Your task to perform on an android device: move an email to a new category in the gmail app Image 0: 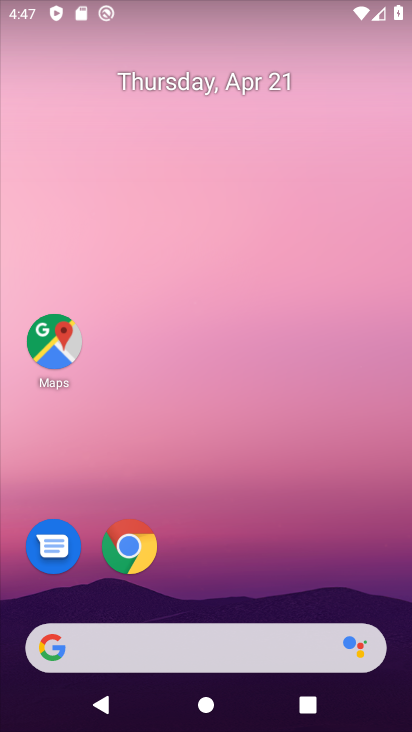
Step 0: drag from (248, 540) to (238, 70)
Your task to perform on an android device: move an email to a new category in the gmail app Image 1: 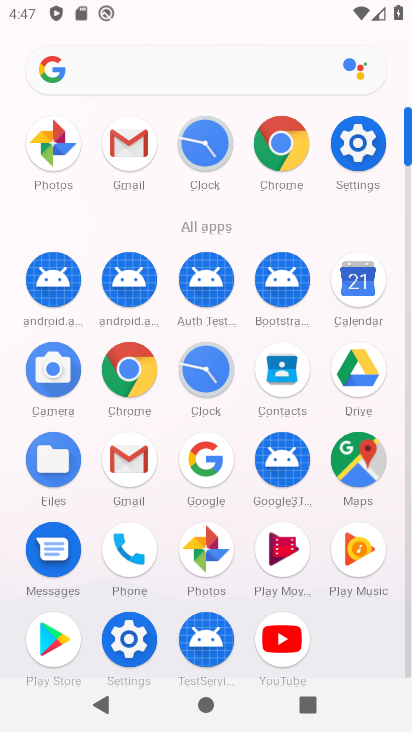
Step 1: click (129, 135)
Your task to perform on an android device: move an email to a new category in the gmail app Image 2: 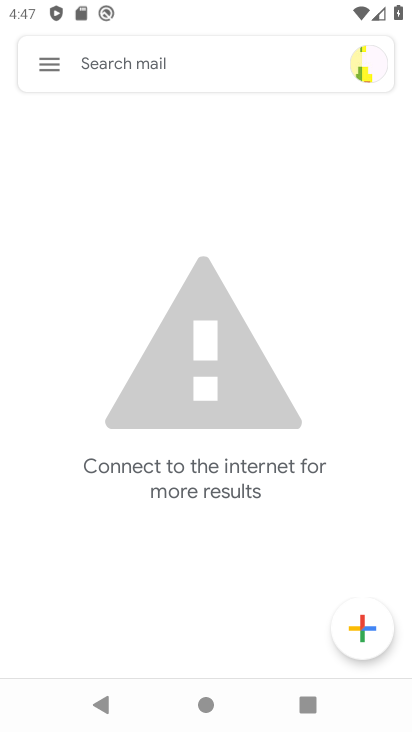
Step 2: click (50, 65)
Your task to perform on an android device: move an email to a new category in the gmail app Image 3: 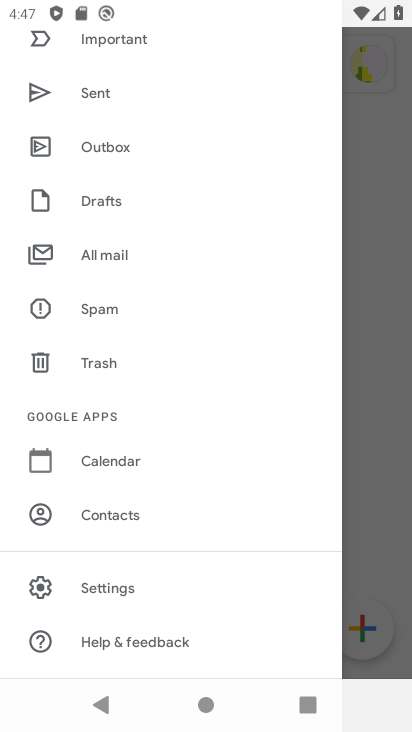
Step 3: click (115, 259)
Your task to perform on an android device: move an email to a new category in the gmail app Image 4: 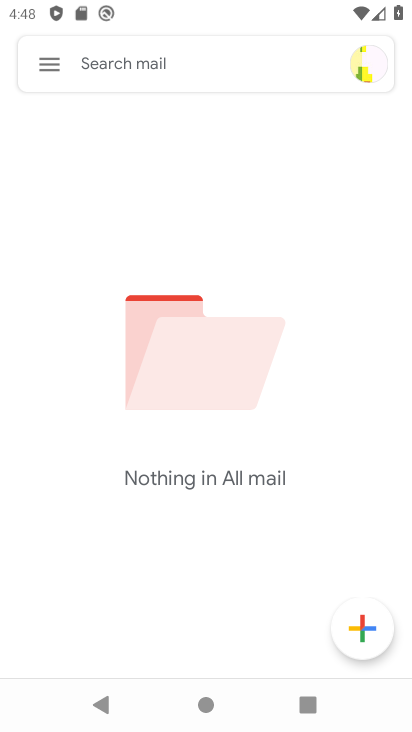
Step 4: click (51, 64)
Your task to perform on an android device: move an email to a new category in the gmail app Image 5: 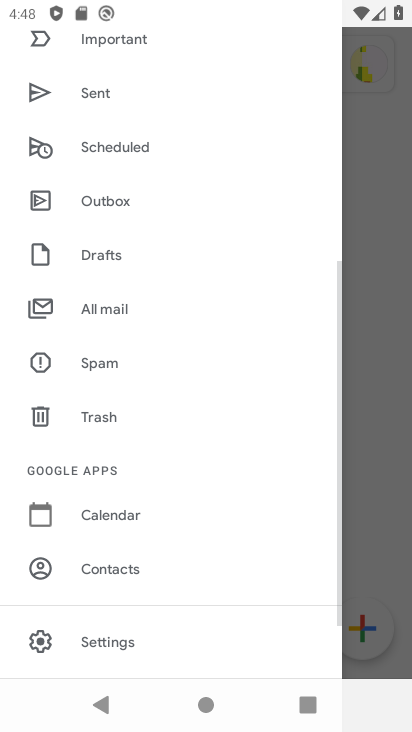
Step 5: drag from (170, 129) to (138, 509)
Your task to perform on an android device: move an email to a new category in the gmail app Image 6: 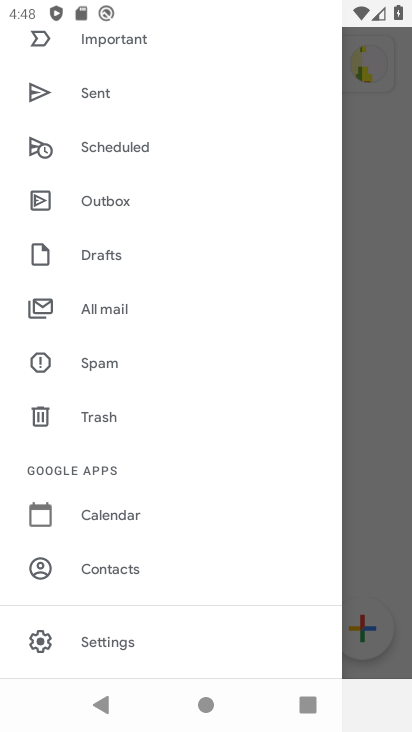
Step 6: drag from (127, 197) to (96, 602)
Your task to perform on an android device: move an email to a new category in the gmail app Image 7: 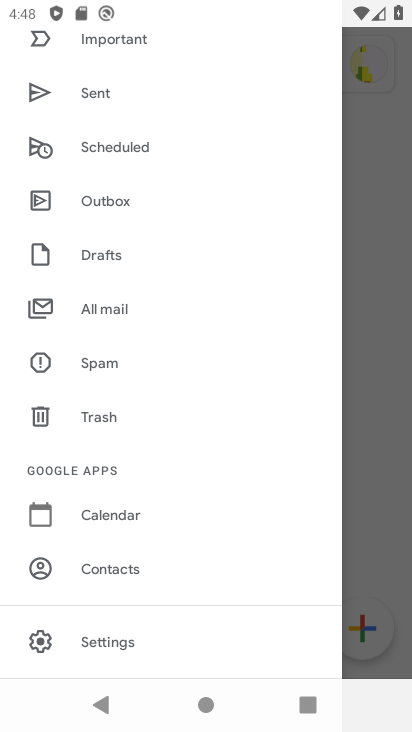
Step 7: drag from (116, 275) to (116, 539)
Your task to perform on an android device: move an email to a new category in the gmail app Image 8: 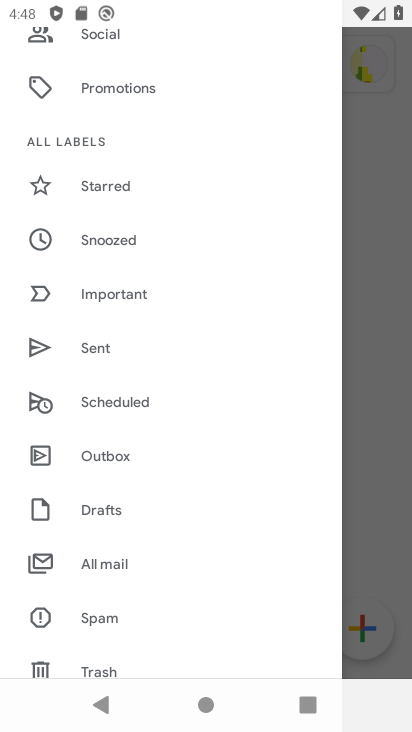
Step 8: drag from (106, 129) to (91, 495)
Your task to perform on an android device: move an email to a new category in the gmail app Image 9: 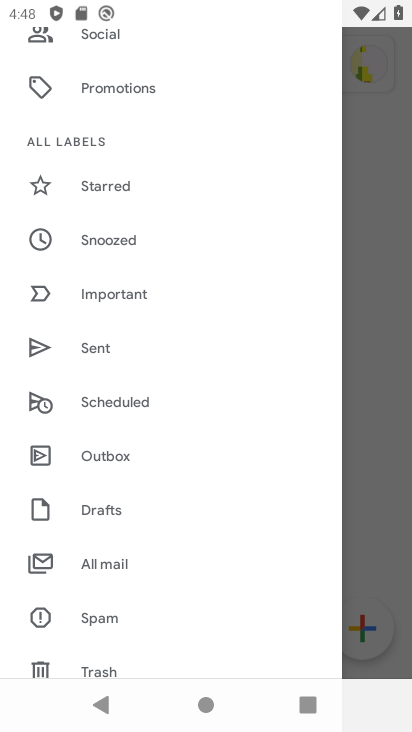
Step 9: drag from (123, 199) to (79, 524)
Your task to perform on an android device: move an email to a new category in the gmail app Image 10: 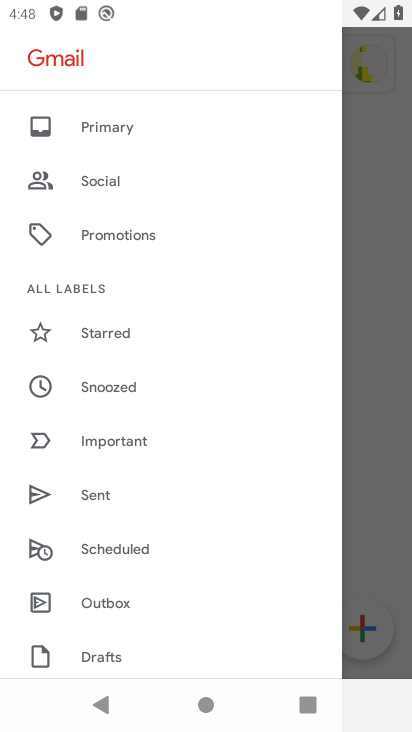
Step 10: click (112, 129)
Your task to perform on an android device: move an email to a new category in the gmail app Image 11: 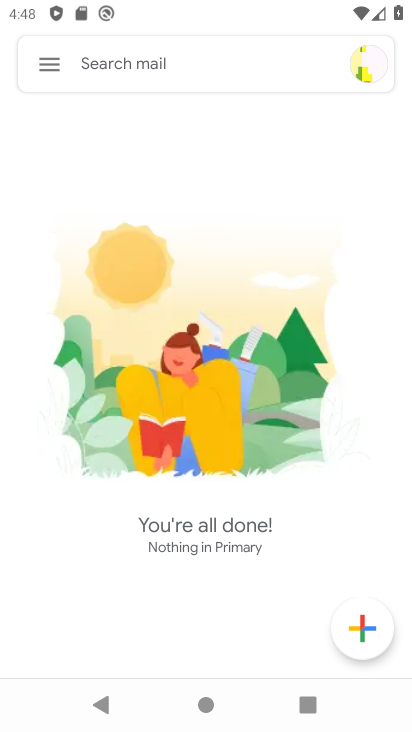
Step 11: task complete